Your task to perform on an android device: empty trash in the gmail app Image 0: 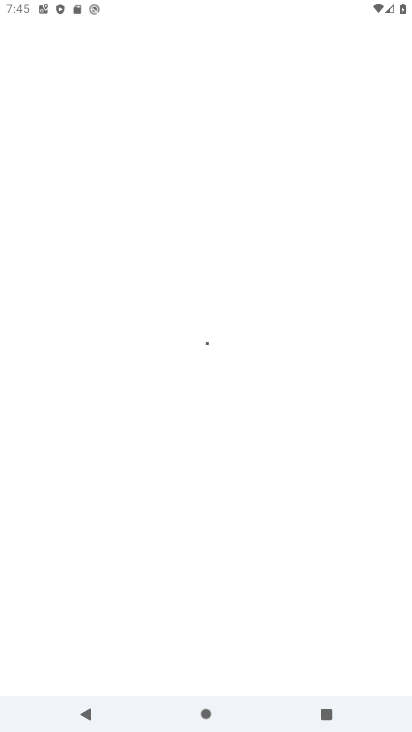
Step 0: drag from (238, 646) to (247, 342)
Your task to perform on an android device: empty trash in the gmail app Image 1: 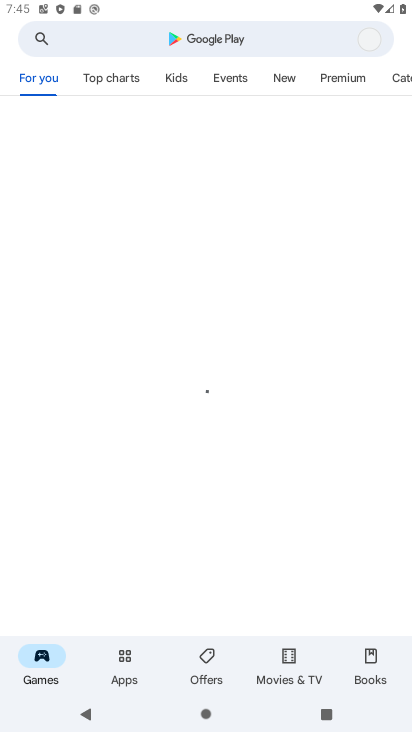
Step 1: press home button
Your task to perform on an android device: empty trash in the gmail app Image 2: 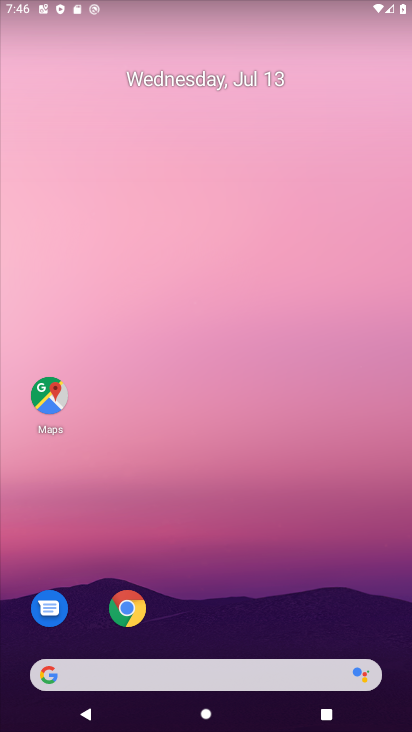
Step 2: drag from (202, 646) to (126, 3)
Your task to perform on an android device: empty trash in the gmail app Image 3: 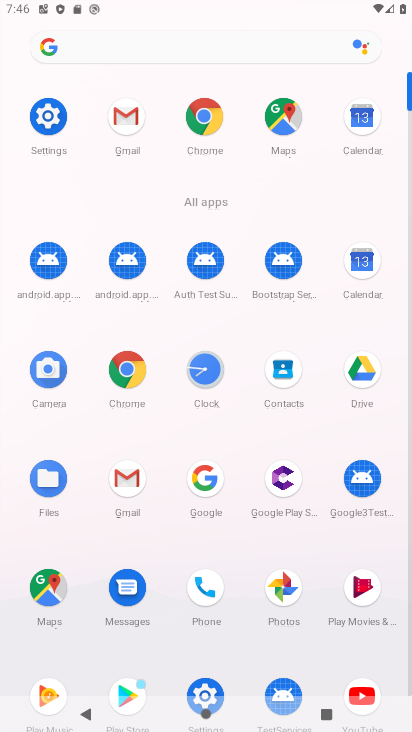
Step 3: click (135, 482)
Your task to perform on an android device: empty trash in the gmail app Image 4: 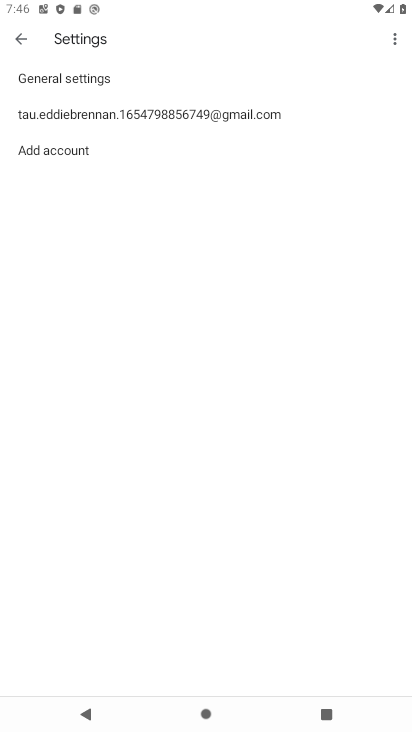
Step 4: click (18, 35)
Your task to perform on an android device: empty trash in the gmail app Image 5: 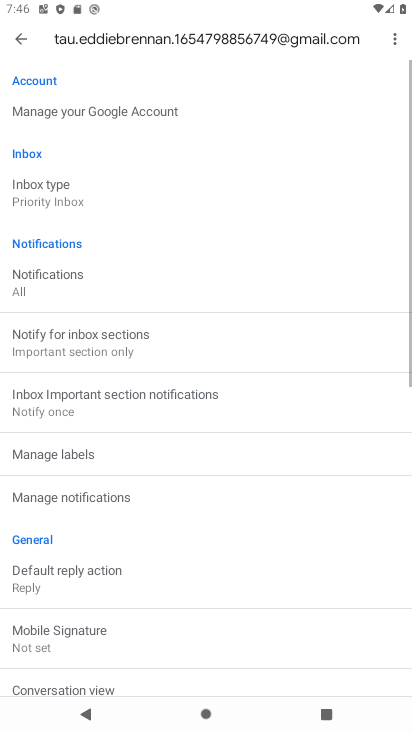
Step 5: click (18, 35)
Your task to perform on an android device: empty trash in the gmail app Image 6: 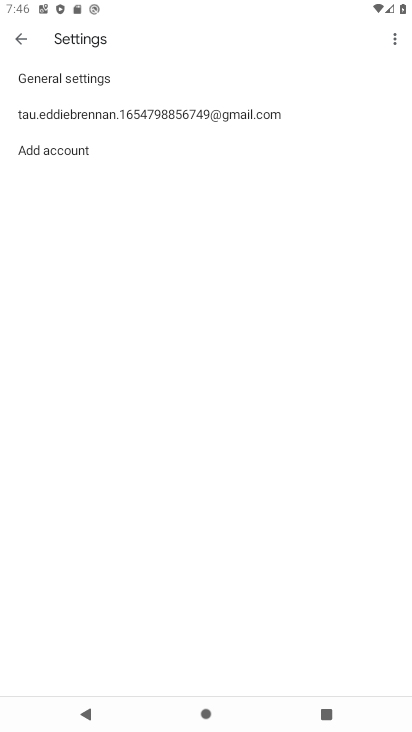
Step 6: click (18, 35)
Your task to perform on an android device: empty trash in the gmail app Image 7: 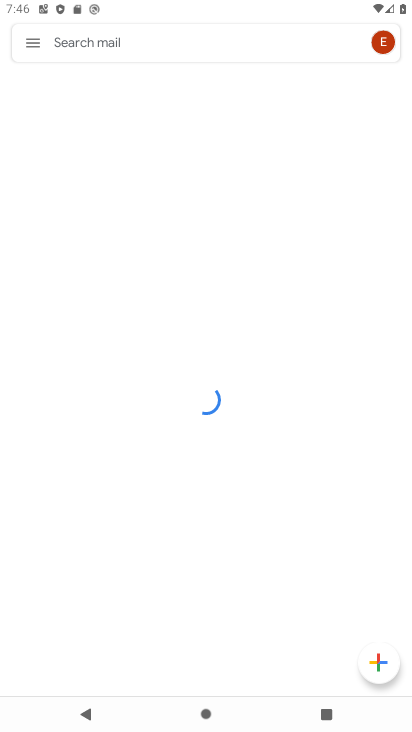
Step 7: click (18, 35)
Your task to perform on an android device: empty trash in the gmail app Image 8: 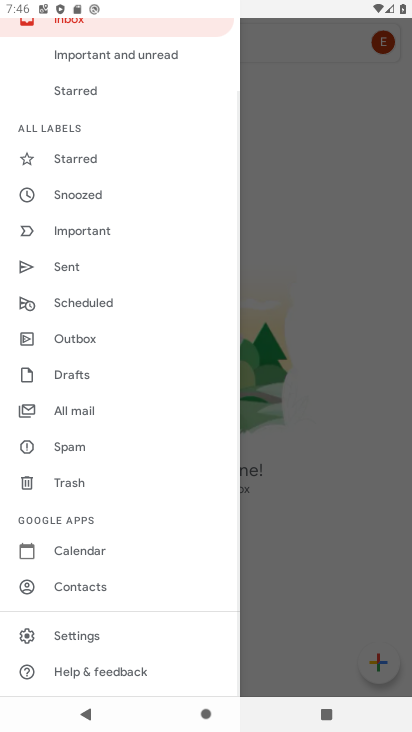
Step 8: click (59, 480)
Your task to perform on an android device: empty trash in the gmail app Image 9: 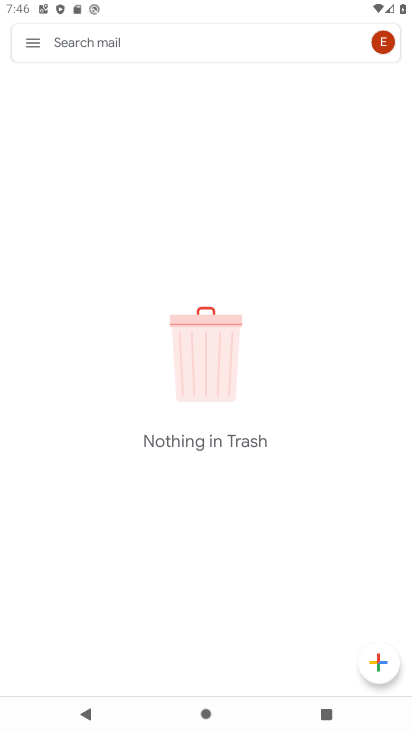
Step 9: task complete